Your task to perform on an android device: Open ESPN.com Image 0: 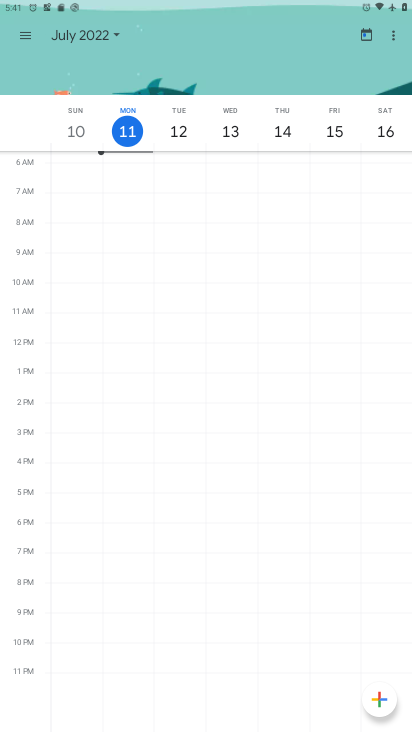
Step 0: press home button
Your task to perform on an android device: Open ESPN.com Image 1: 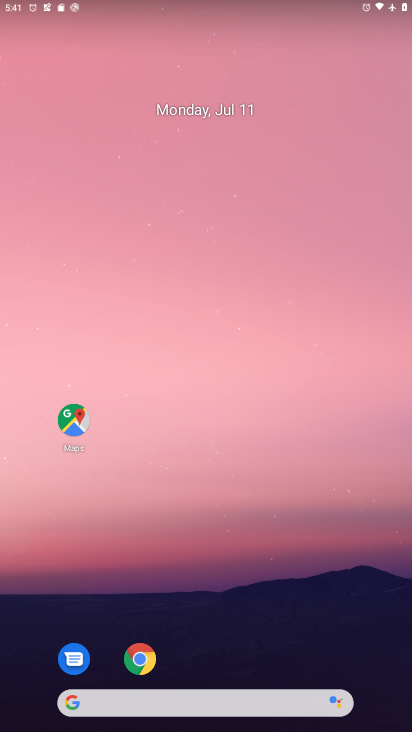
Step 1: click (139, 658)
Your task to perform on an android device: Open ESPN.com Image 2: 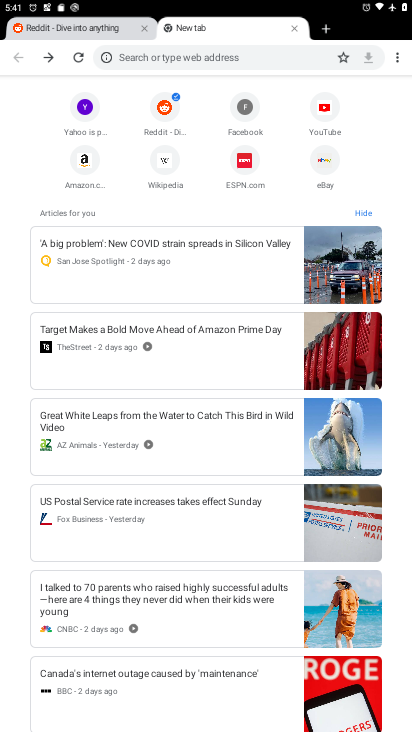
Step 2: click (179, 58)
Your task to perform on an android device: Open ESPN.com Image 3: 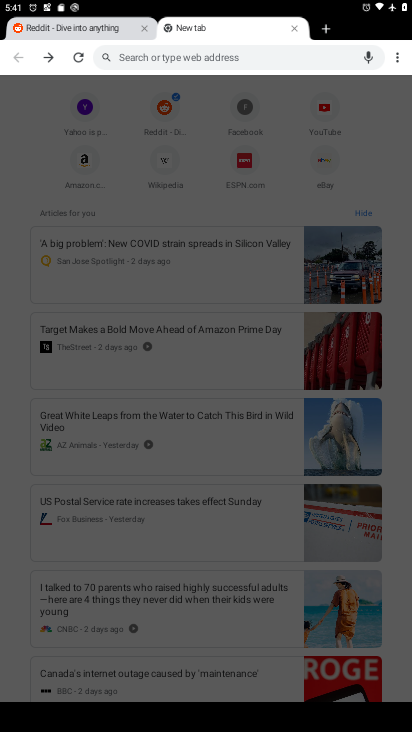
Step 3: type "ESPN.com"
Your task to perform on an android device: Open ESPN.com Image 4: 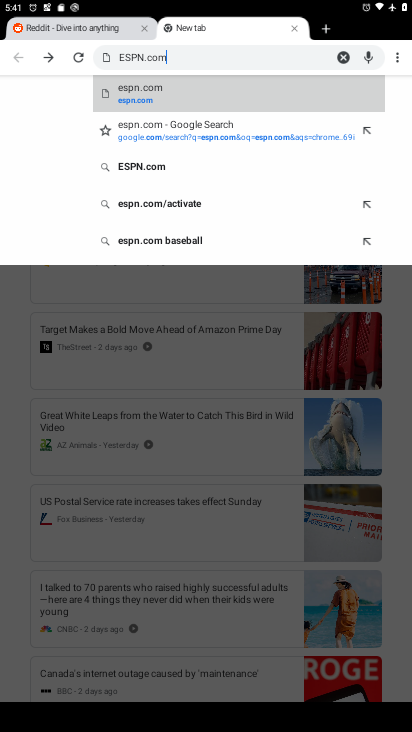
Step 4: click (137, 89)
Your task to perform on an android device: Open ESPN.com Image 5: 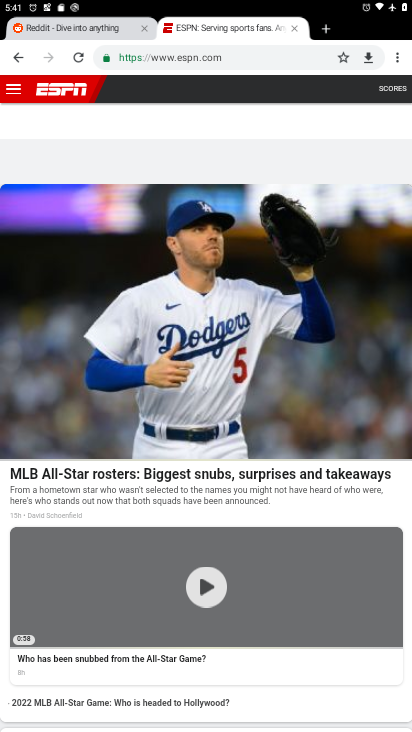
Step 5: task complete